Your task to perform on an android device: Do I have any events this weekend? Image 0: 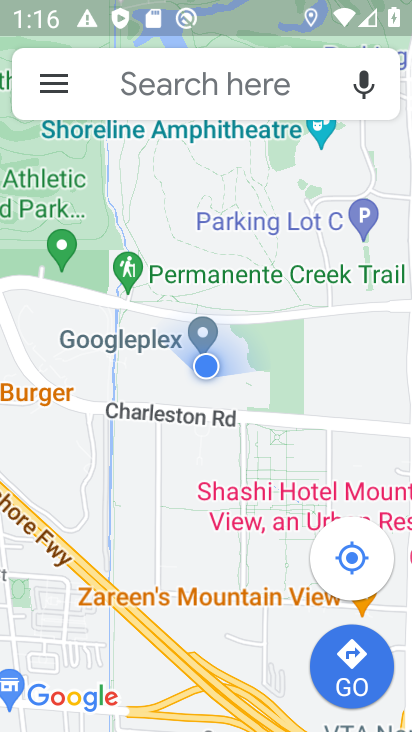
Step 0: press home button
Your task to perform on an android device: Do I have any events this weekend? Image 1: 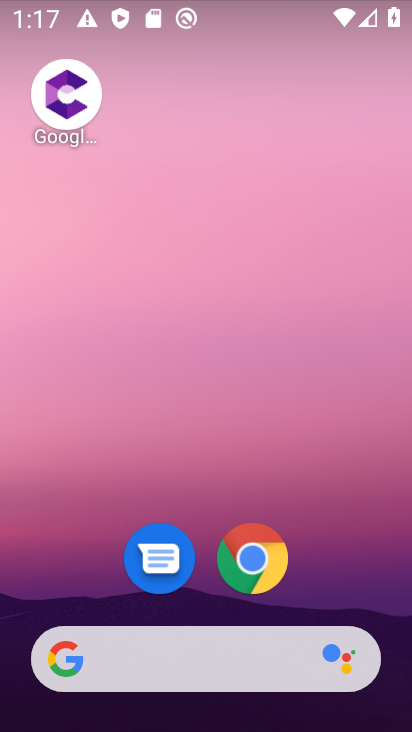
Step 1: drag from (186, 603) to (7, 378)
Your task to perform on an android device: Do I have any events this weekend? Image 2: 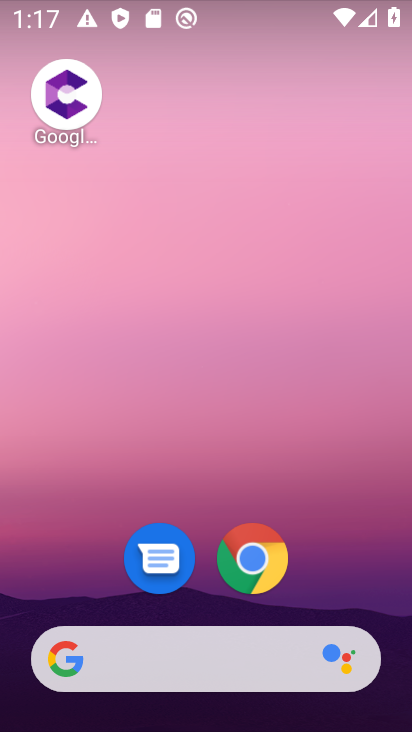
Step 2: drag from (192, 259) to (185, 80)
Your task to perform on an android device: Do I have any events this weekend? Image 3: 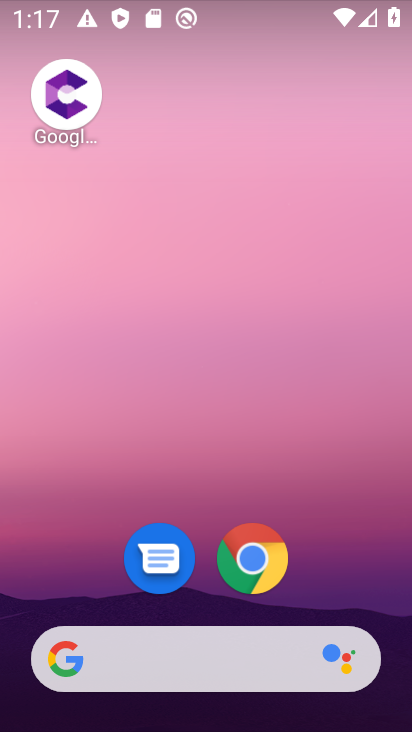
Step 3: drag from (222, 606) to (122, 3)
Your task to perform on an android device: Do I have any events this weekend? Image 4: 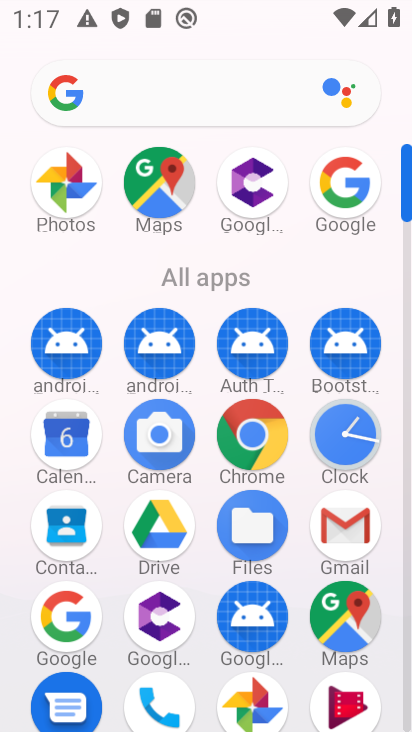
Step 4: click (62, 421)
Your task to perform on an android device: Do I have any events this weekend? Image 5: 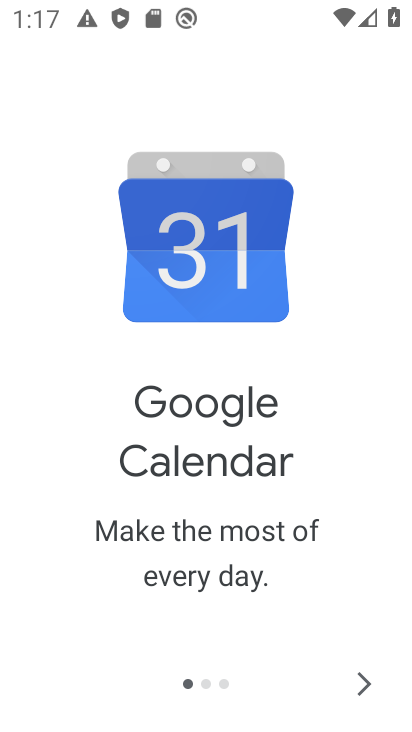
Step 5: click (351, 689)
Your task to perform on an android device: Do I have any events this weekend? Image 6: 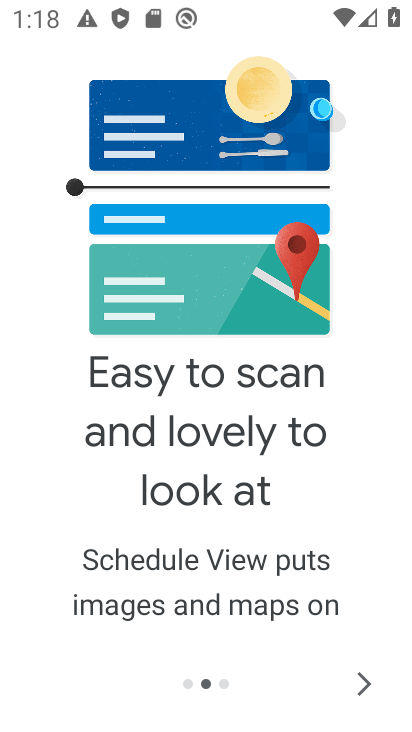
Step 6: click (356, 684)
Your task to perform on an android device: Do I have any events this weekend? Image 7: 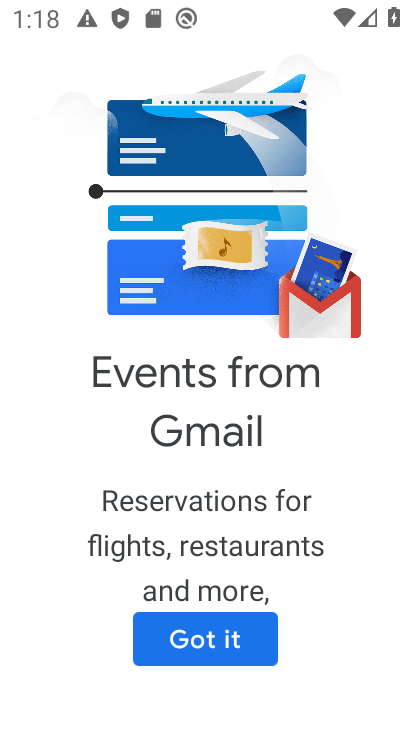
Step 7: click (187, 645)
Your task to perform on an android device: Do I have any events this weekend? Image 8: 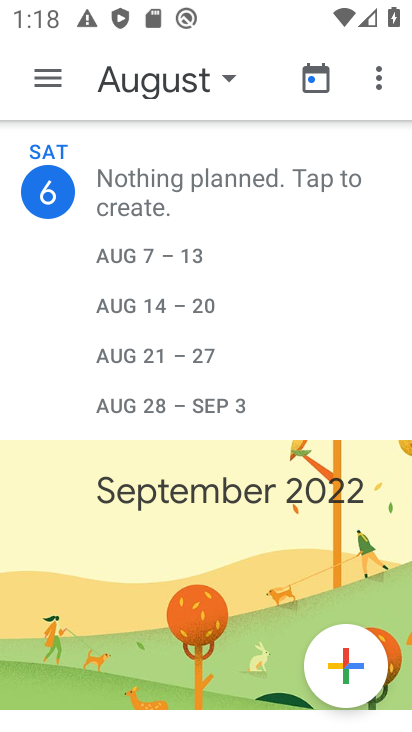
Step 8: click (56, 83)
Your task to perform on an android device: Do I have any events this weekend? Image 9: 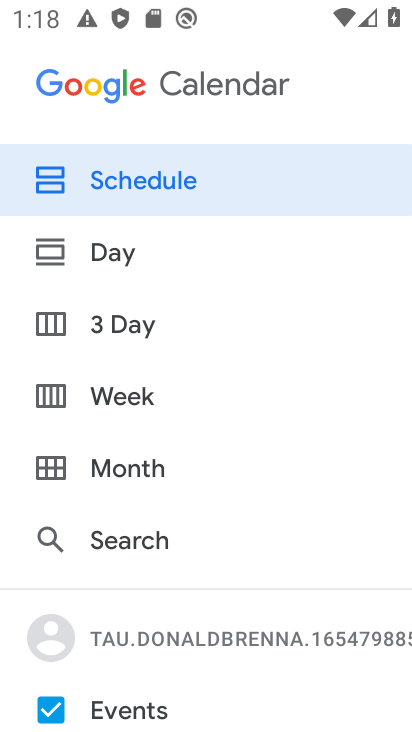
Step 9: click (156, 394)
Your task to perform on an android device: Do I have any events this weekend? Image 10: 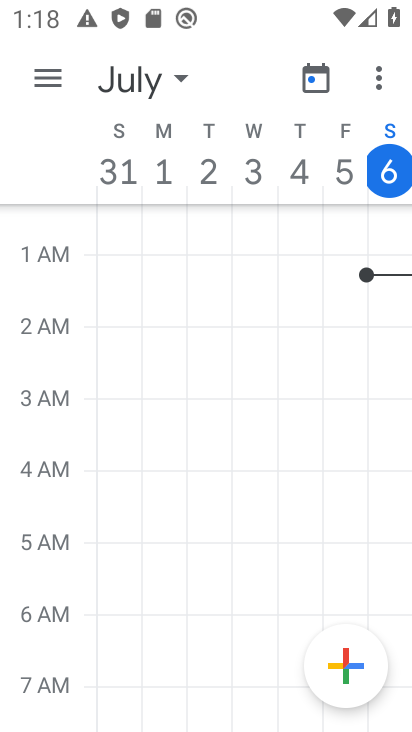
Step 10: task complete